Your task to perform on an android device: Open settings on Google Maps Image 0: 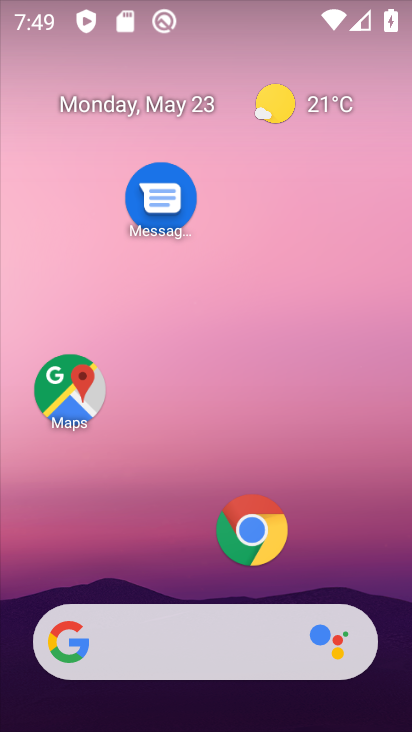
Step 0: click (59, 405)
Your task to perform on an android device: Open settings on Google Maps Image 1: 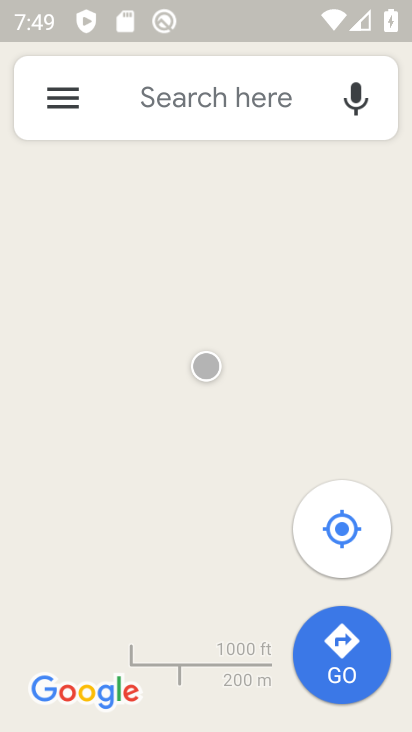
Step 1: click (69, 107)
Your task to perform on an android device: Open settings on Google Maps Image 2: 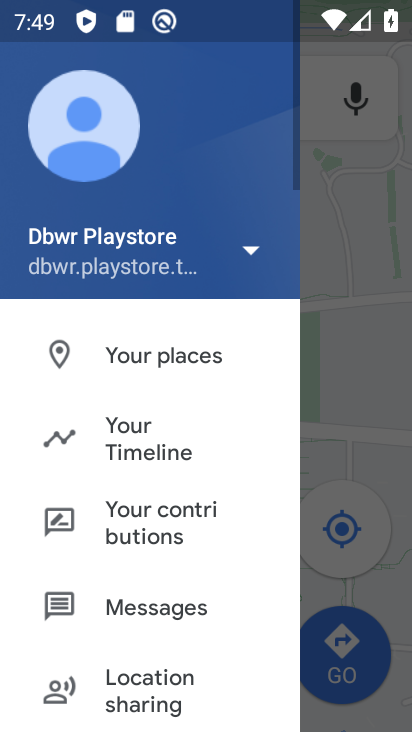
Step 2: drag from (78, 655) to (186, 68)
Your task to perform on an android device: Open settings on Google Maps Image 3: 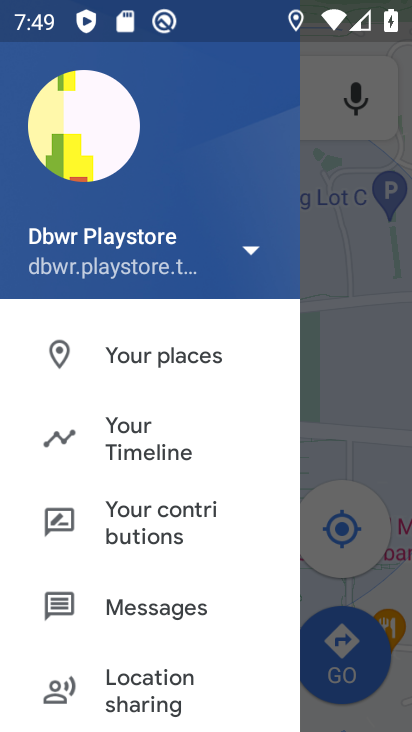
Step 3: drag from (101, 651) to (160, 170)
Your task to perform on an android device: Open settings on Google Maps Image 4: 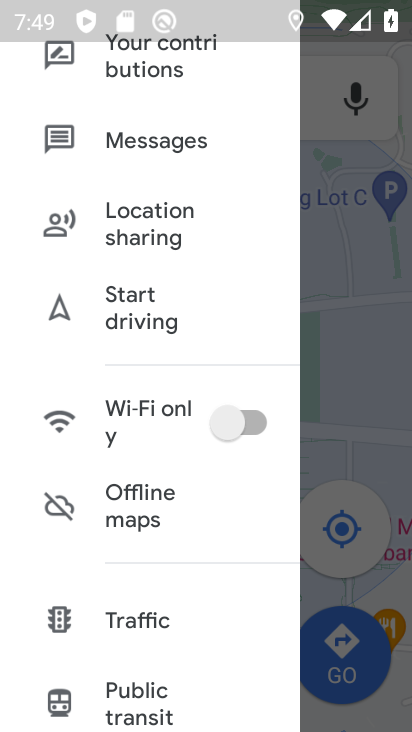
Step 4: drag from (69, 651) to (176, 175)
Your task to perform on an android device: Open settings on Google Maps Image 5: 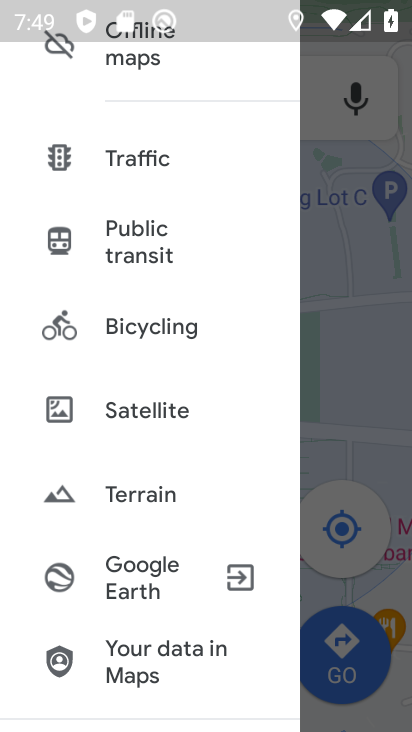
Step 5: drag from (95, 693) to (112, 188)
Your task to perform on an android device: Open settings on Google Maps Image 6: 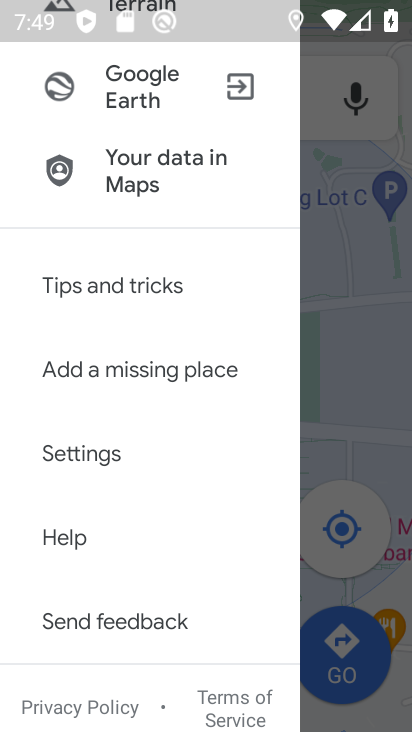
Step 6: click (75, 461)
Your task to perform on an android device: Open settings on Google Maps Image 7: 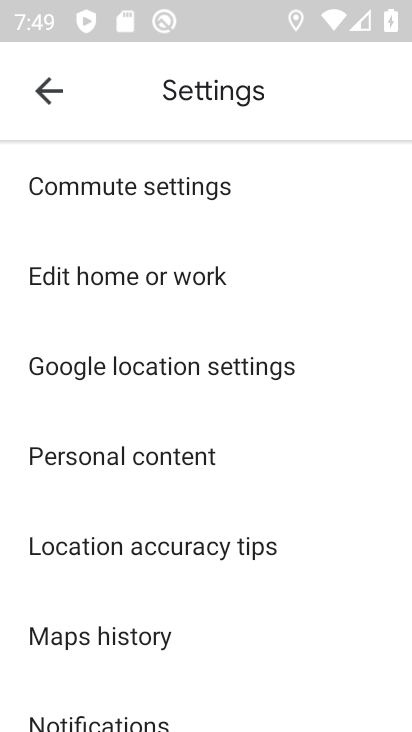
Step 7: task complete